Your task to perform on an android device: Go to accessibility settings Image 0: 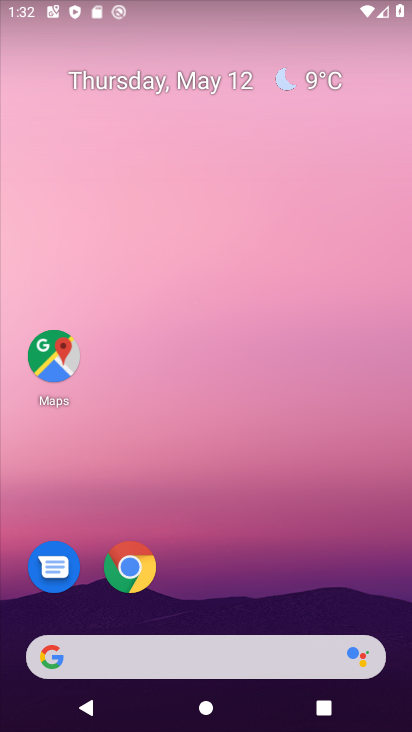
Step 0: drag from (224, 596) to (230, 164)
Your task to perform on an android device: Go to accessibility settings Image 1: 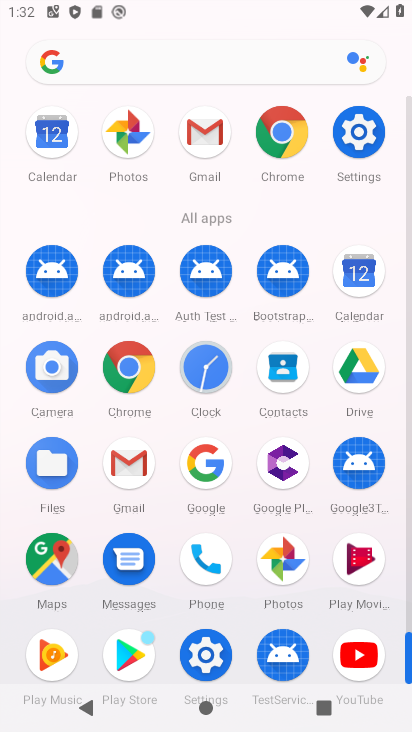
Step 1: drag from (245, 595) to (245, 207)
Your task to perform on an android device: Go to accessibility settings Image 2: 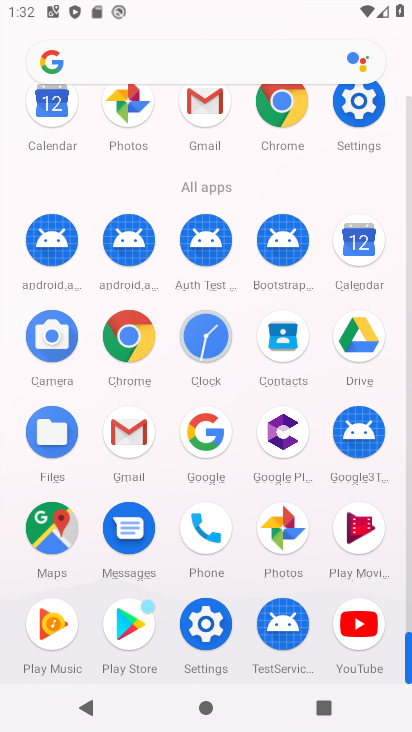
Step 2: drag from (245, 208) to (210, 455)
Your task to perform on an android device: Go to accessibility settings Image 3: 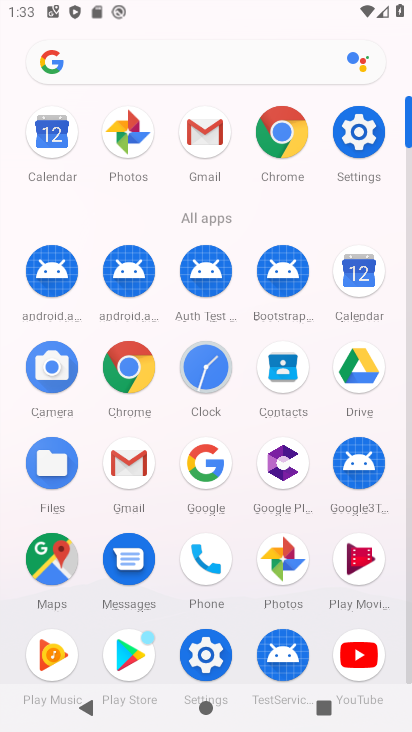
Step 3: drag from (220, 488) to (229, 267)
Your task to perform on an android device: Go to accessibility settings Image 4: 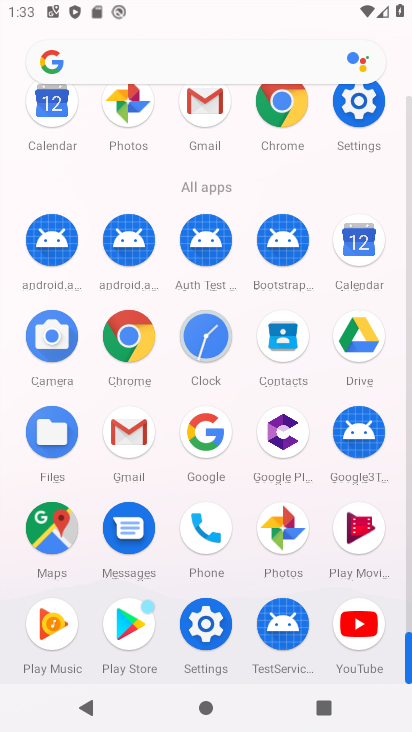
Step 4: click (201, 627)
Your task to perform on an android device: Go to accessibility settings Image 5: 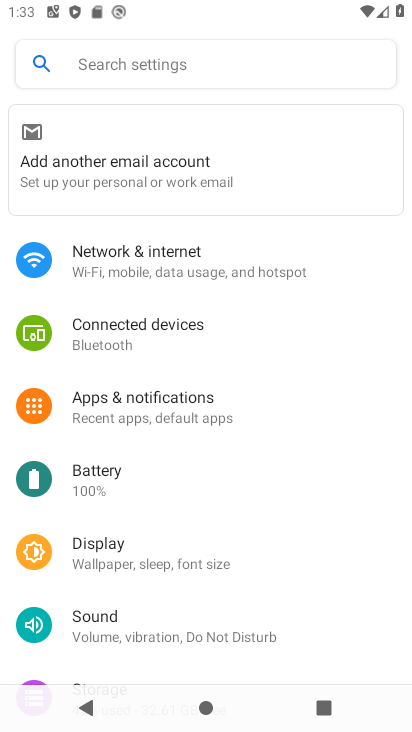
Step 5: drag from (205, 616) to (194, 231)
Your task to perform on an android device: Go to accessibility settings Image 6: 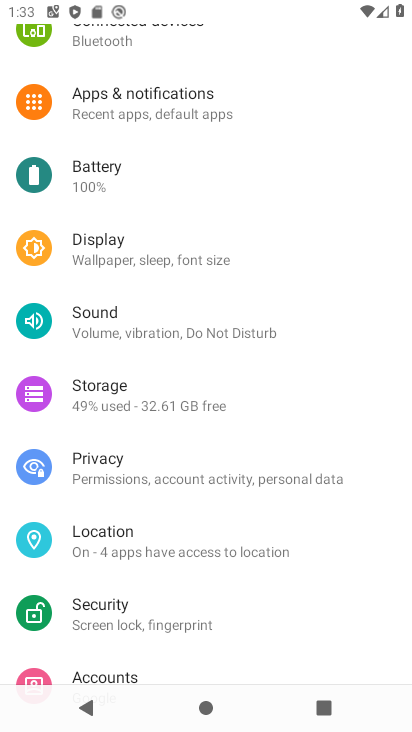
Step 6: drag from (158, 622) to (159, 128)
Your task to perform on an android device: Go to accessibility settings Image 7: 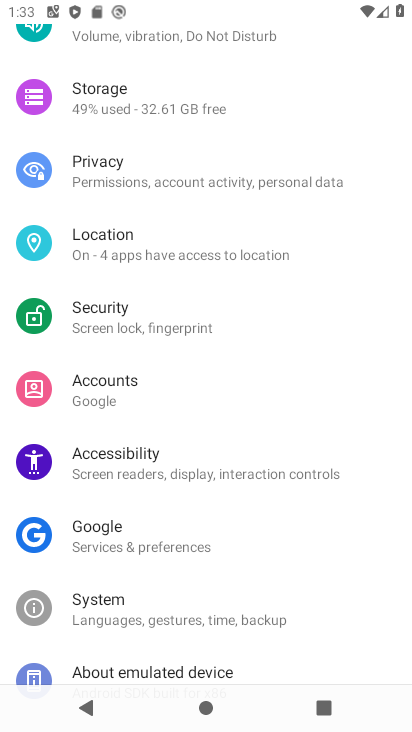
Step 7: click (133, 469)
Your task to perform on an android device: Go to accessibility settings Image 8: 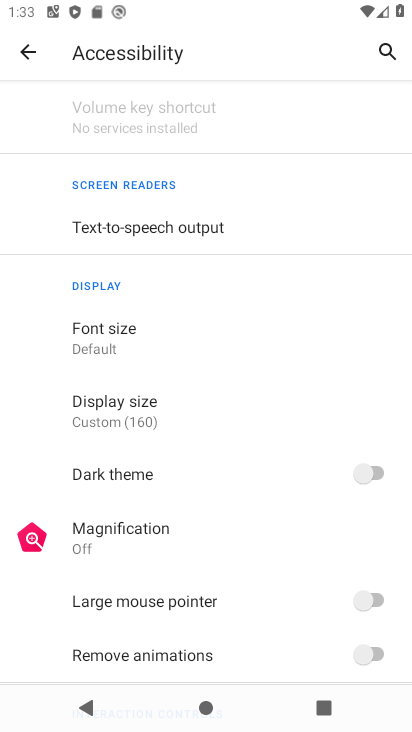
Step 8: task complete